Your task to perform on an android device: turn off airplane mode Image 0: 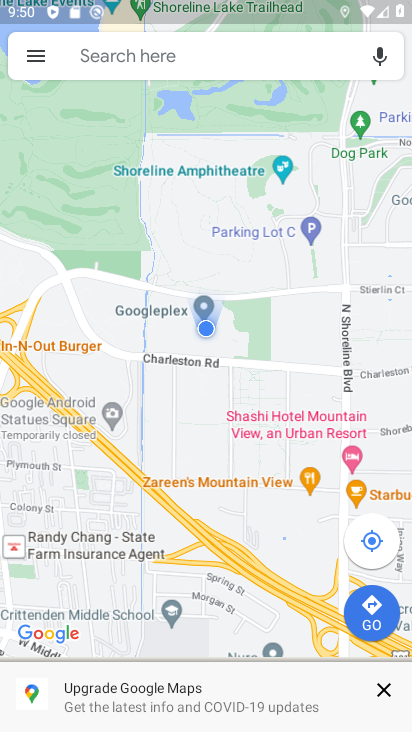
Step 0: press home button
Your task to perform on an android device: turn off airplane mode Image 1: 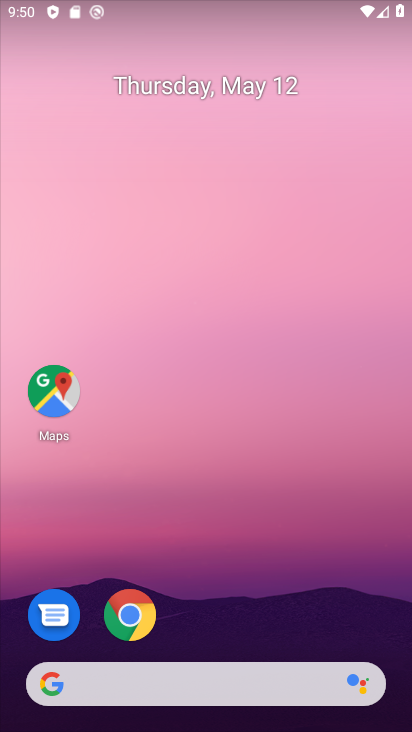
Step 1: drag from (225, 723) to (277, 237)
Your task to perform on an android device: turn off airplane mode Image 2: 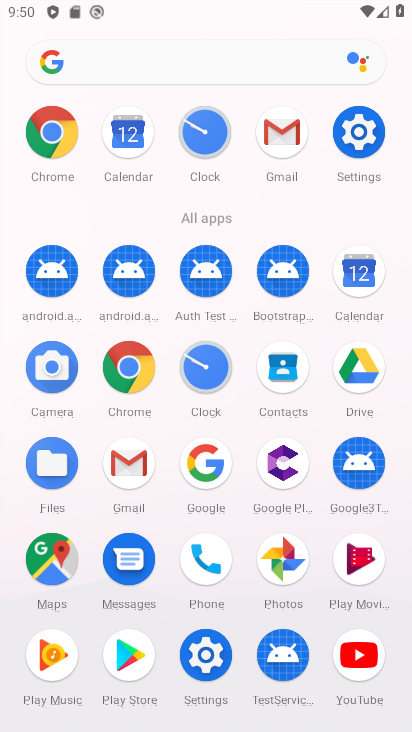
Step 2: click (361, 127)
Your task to perform on an android device: turn off airplane mode Image 3: 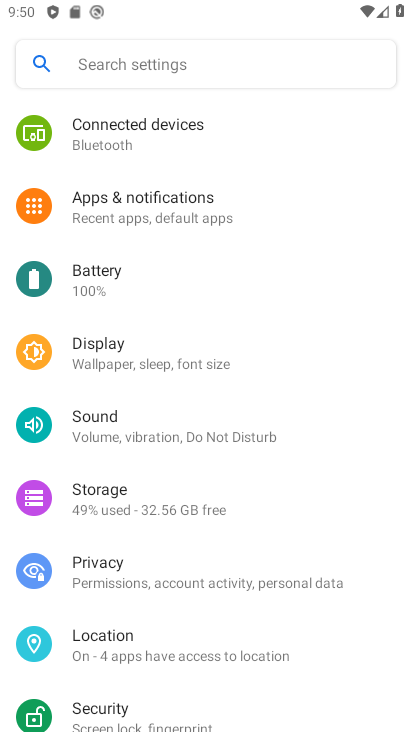
Step 3: drag from (250, 132) to (256, 520)
Your task to perform on an android device: turn off airplane mode Image 4: 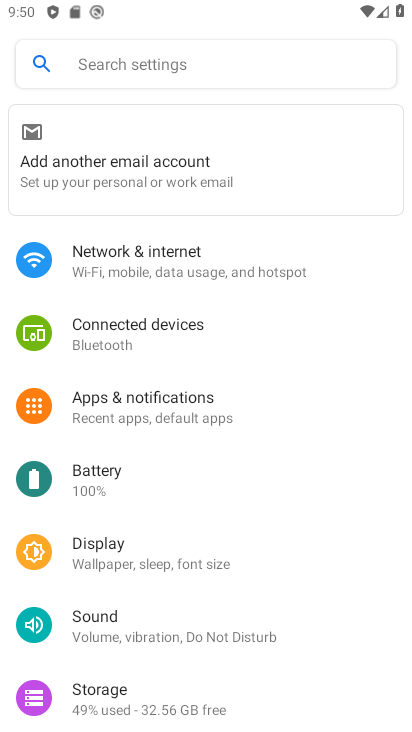
Step 4: click (120, 262)
Your task to perform on an android device: turn off airplane mode Image 5: 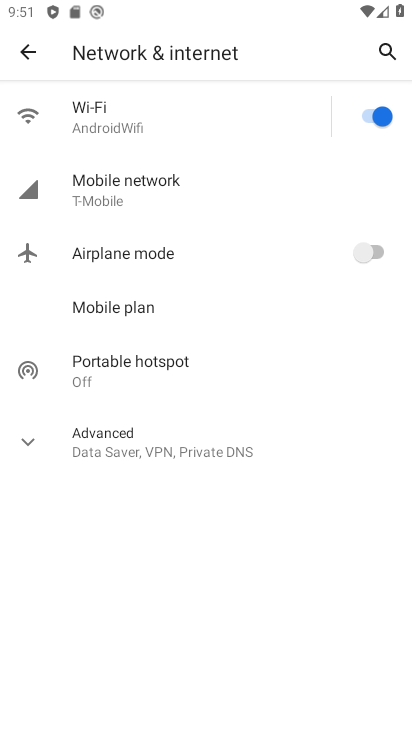
Step 5: task complete